Your task to perform on an android device: Open settings on Google Maps Image 0: 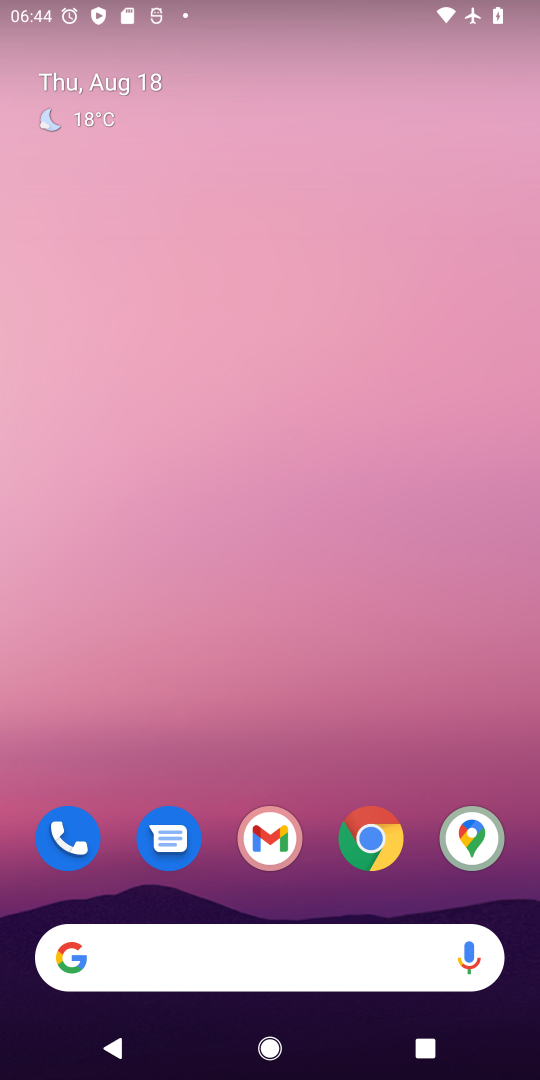
Step 0: task impossible